Your task to perform on an android device: Do I have any events this weekend? Image 0: 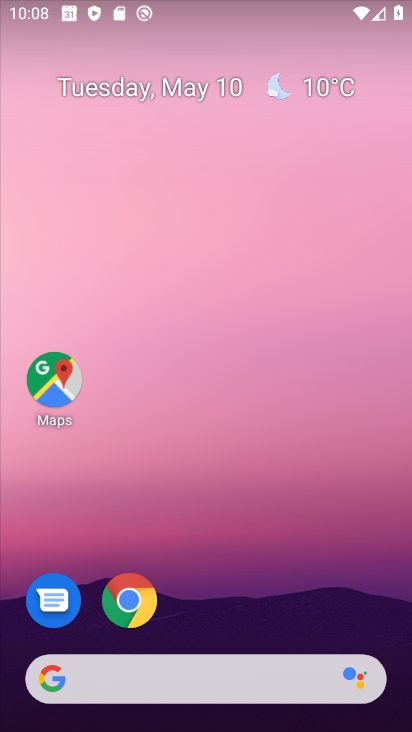
Step 0: drag from (323, 535) to (377, 120)
Your task to perform on an android device: Do I have any events this weekend? Image 1: 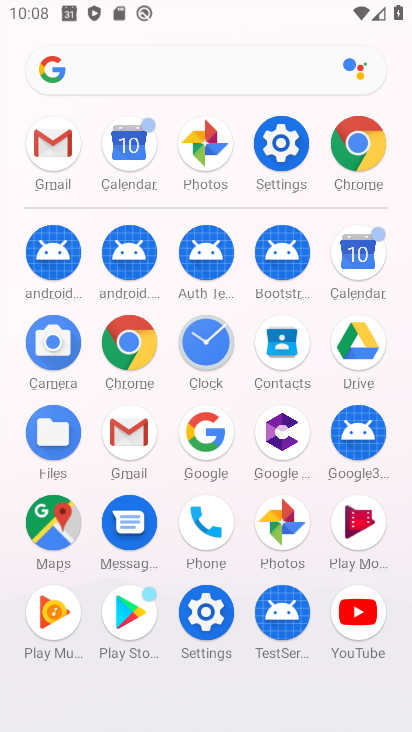
Step 1: click (137, 165)
Your task to perform on an android device: Do I have any events this weekend? Image 2: 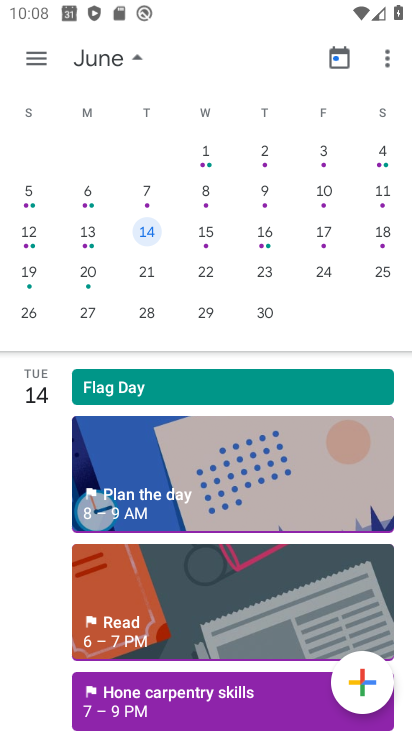
Step 2: click (202, 237)
Your task to perform on an android device: Do I have any events this weekend? Image 3: 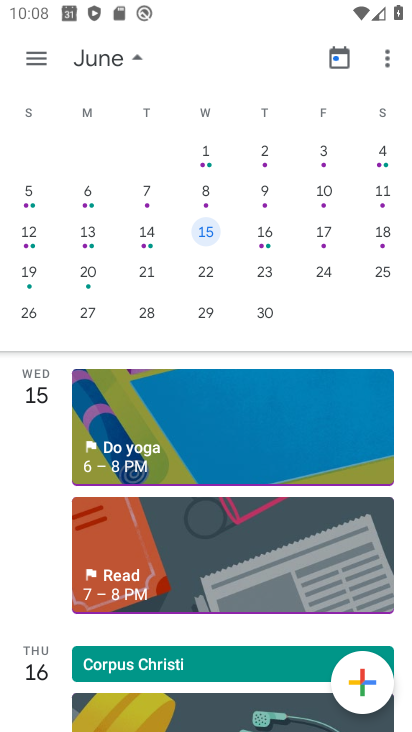
Step 3: task complete